Your task to perform on an android device: create a new album in the google photos Image 0: 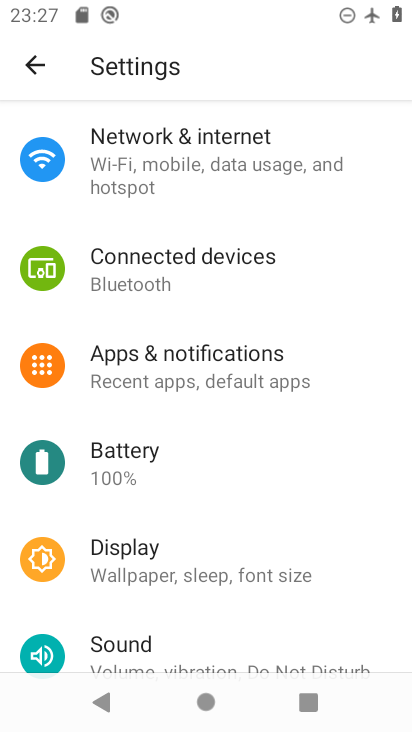
Step 0: press home button
Your task to perform on an android device: create a new album in the google photos Image 1: 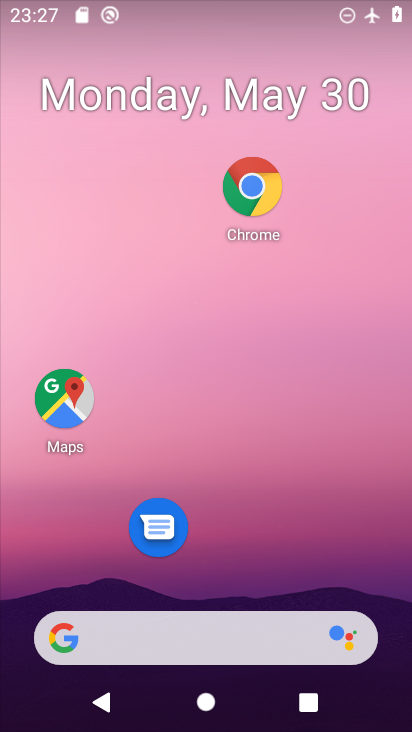
Step 1: drag from (269, 570) to (293, 255)
Your task to perform on an android device: create a new album in the google photos Image 2: 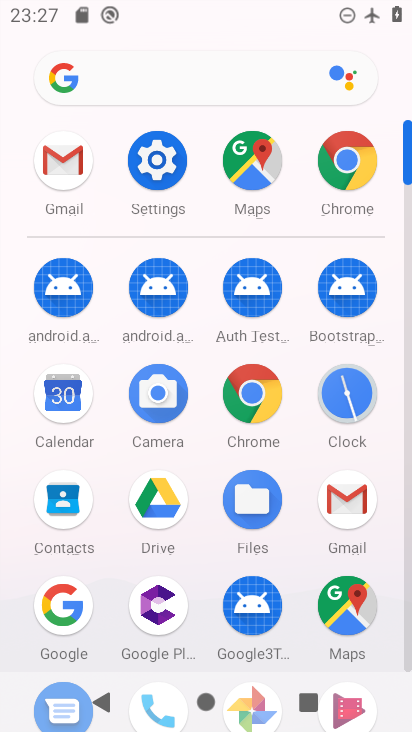
Step 2: drag from (209, 606) to (214, 434)
Your task to perform on an android device: create a new album in the google photos Image 3: 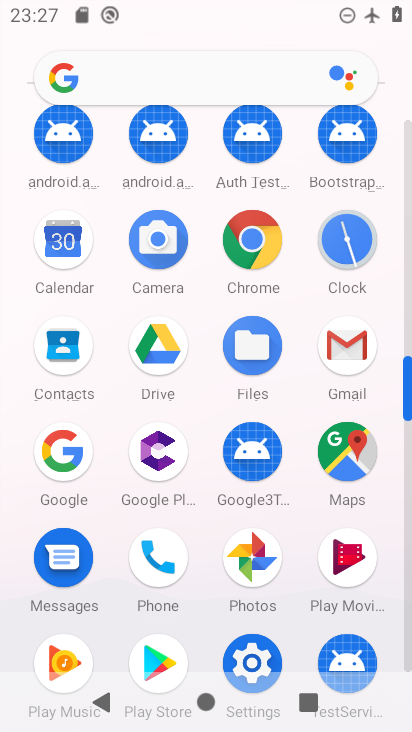
Step 3: click (246, 555)
Your task to perform on an android device: create a new album in the google photos Image 4: 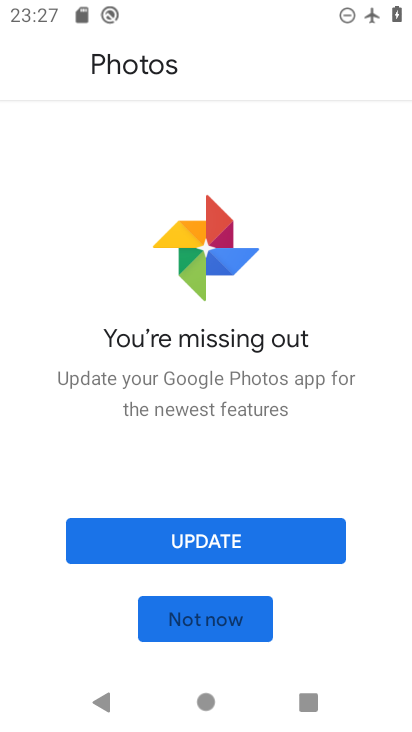
Step 4: click (215, 622)
Your task to perform on an android device: create a new album in the google photos Image 5: 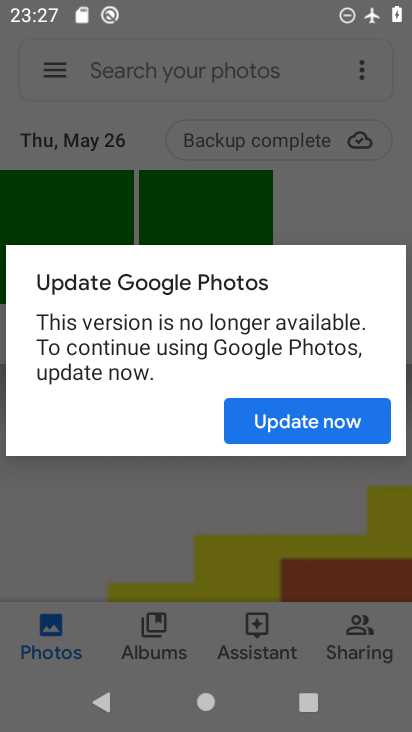
Step 5: press back button
Your task to perform on an android device: create a new album in the google photos Image 6: 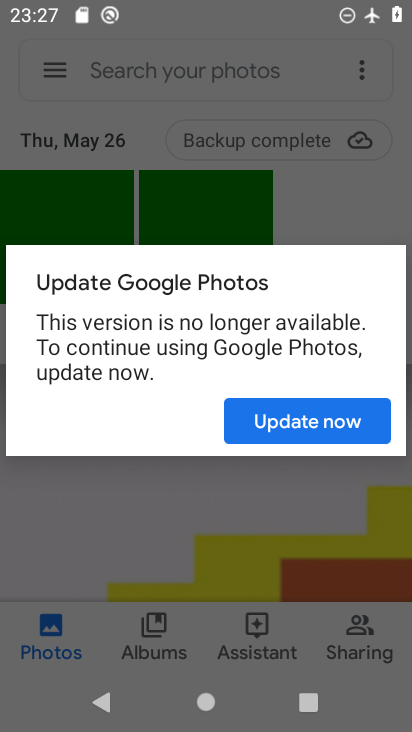
Step 6: click (294, 420)
Your task to perform on an android device: create a new album in the google photos Image 7: 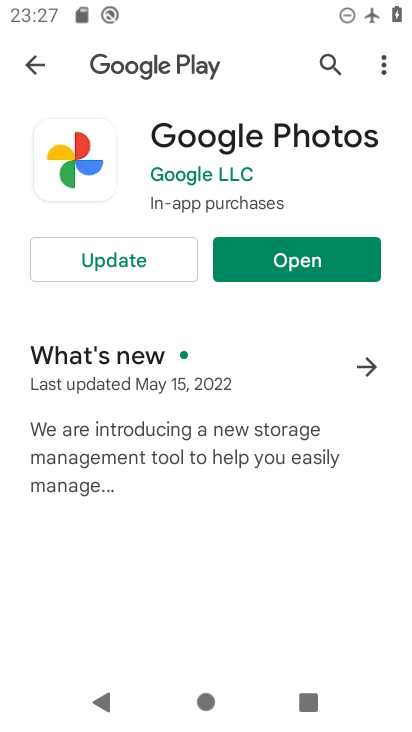
Step 7: press back button
Your task to perform on an android device: create a new album in the google photos Image 8: 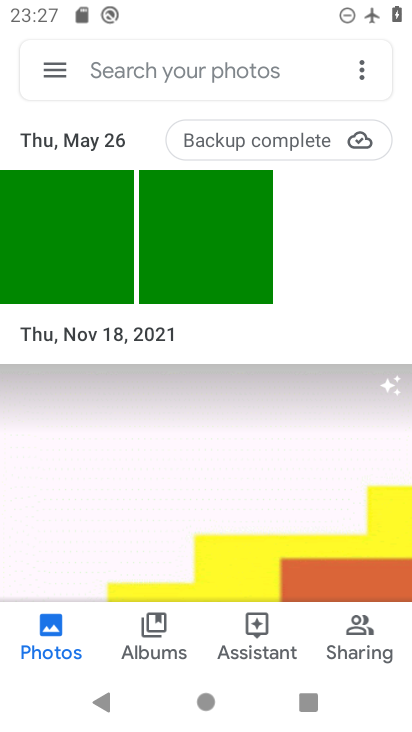
Step 8: click (181, 622)
Your task to perform on an android device: create a new album in the google photos Image 9: 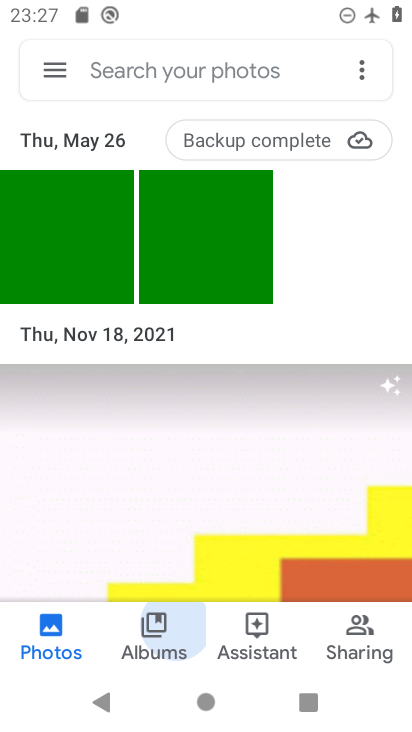
Step 9: click (163, 624)
Your task to perform on an android device: create a new album in the google photos Image 10: 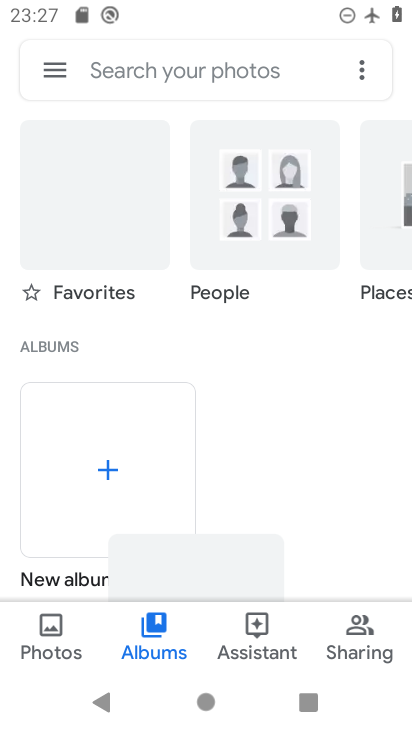
Step 10: click (44, 620)
Your task to perform on an android device: create a new album in the google photos Image 11: 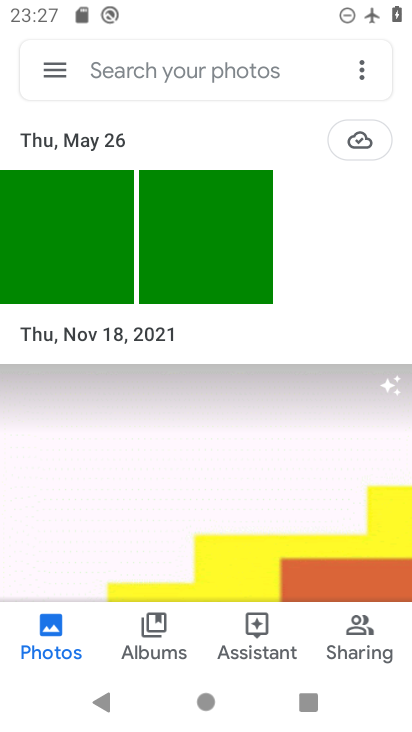
Step 11: click (67, 242)
Your task to perform on an android device: create a new album in the google photos Image 12: 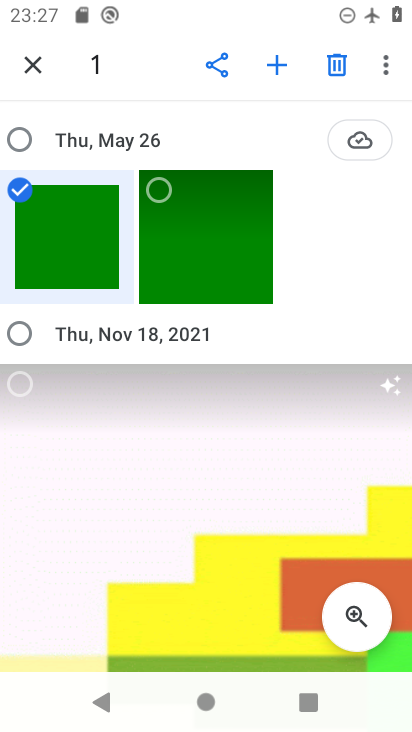
Step 12: click (269, 66)
Your task to perform on an android device: create a new album in the google photos Image 13: 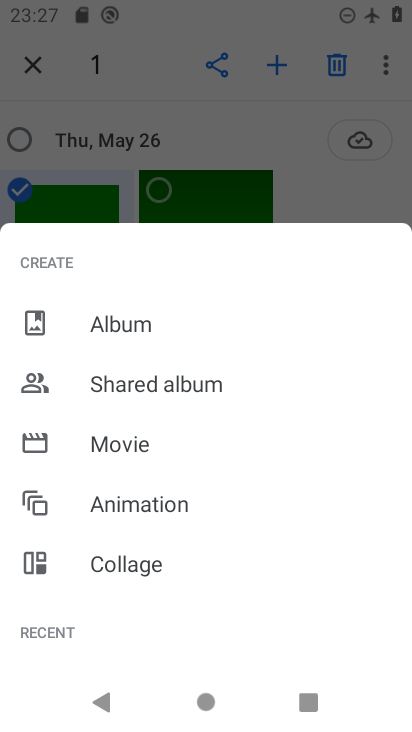
Step 13: click (119, 320)
Your task to perform on an android device: create a new album in the google photos Image 14: 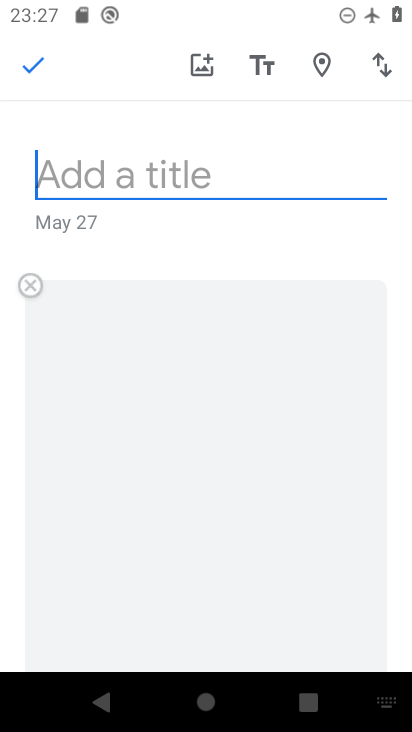
Step 14: click (185, 160)
Your task to perform on an android device: create a new album in the google photos Image 15: 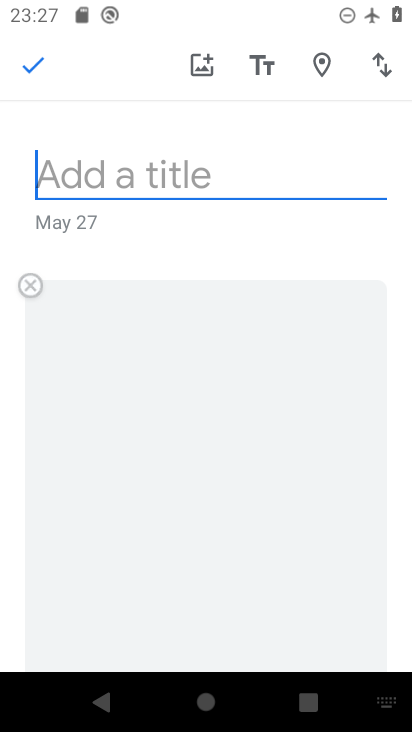
Step 15: type "dfghjk"
Your task to perform on an android device: create a new album in the google photos Image 16: 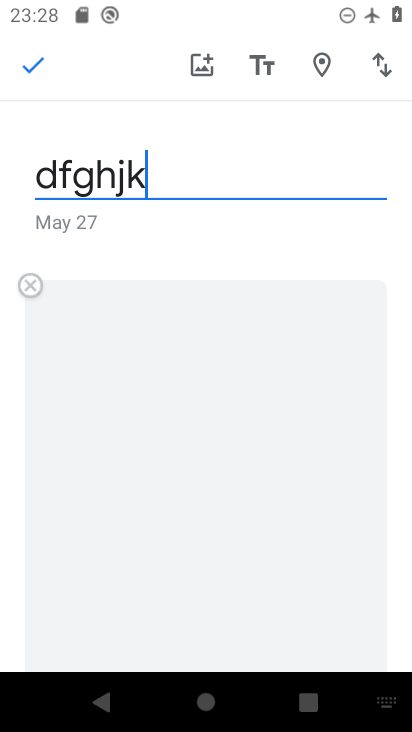
Step 16: click (28, 55)
Your task to perform on an android device: create a new album in the google photos Image 17: 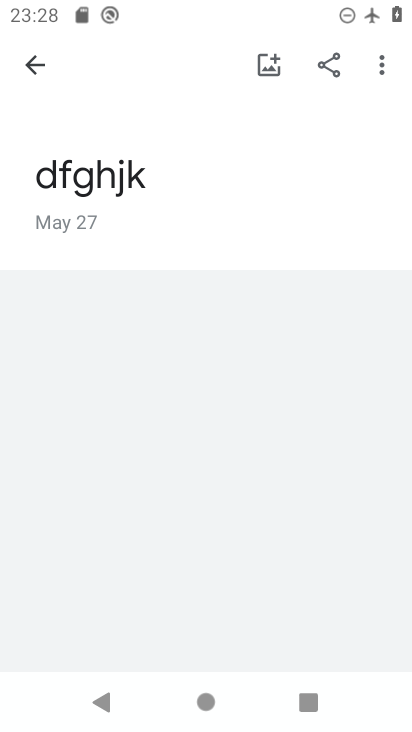
Step 17: task complete